Your task to perform on an android device: toggle sleep mode Image 0: 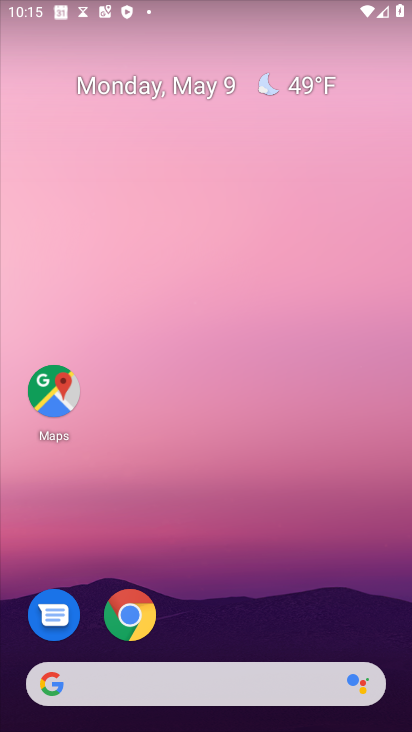
Step 0: drag from (309, 559) to (255, 174)
Your task to perform on an android device: toggle sleep mode Image 1: 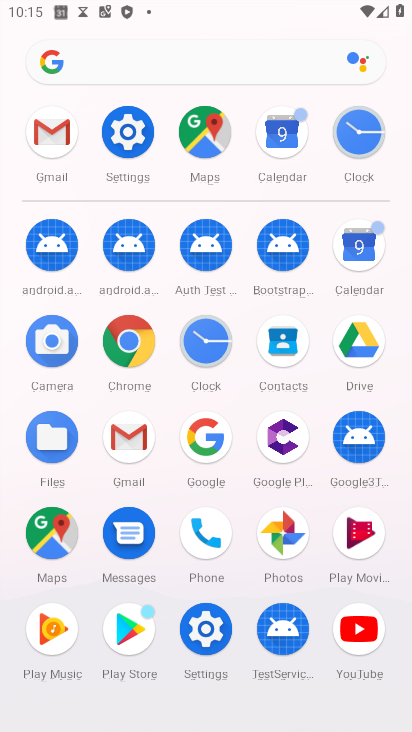
Step 1: click (115, 138)
Your task to perform on an android device: toggle sleep mode Image 2: 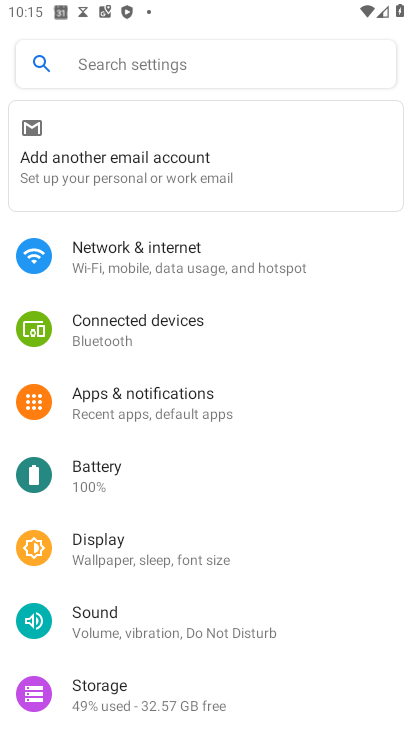
Step 2: click (155, 563)
Your task to perform on an android device: toggle sleep mode Image 3: 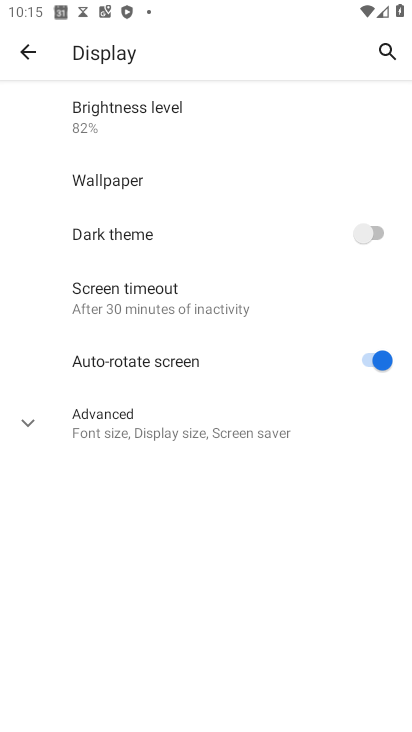
Step 3: click (29, 419)
Your task to perform on an android device: toggle sleep mode Image 4: 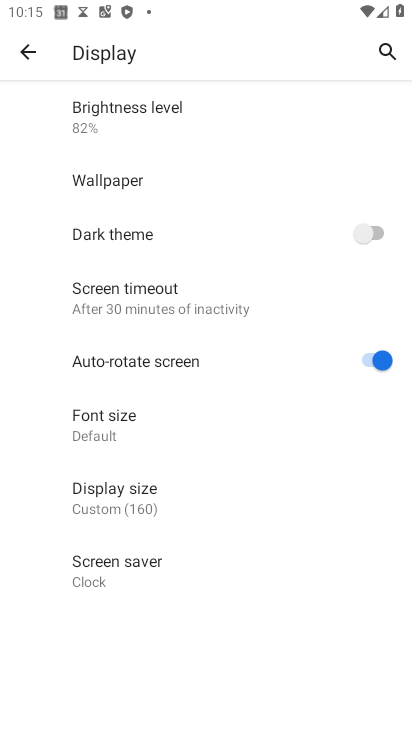
Step 4: task complete